Your task to perform on an android device: uninstall "Google Find My Device" Image 0: 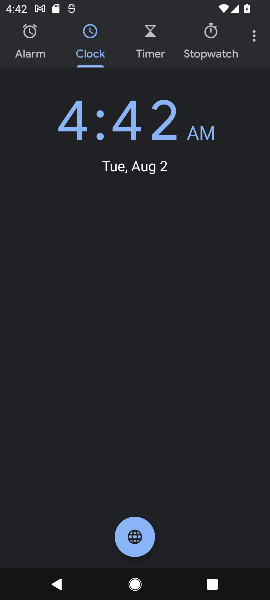
Step 0: press home button
Your task to perform on an android device: uninstall "Google Find My Device" Image 1: 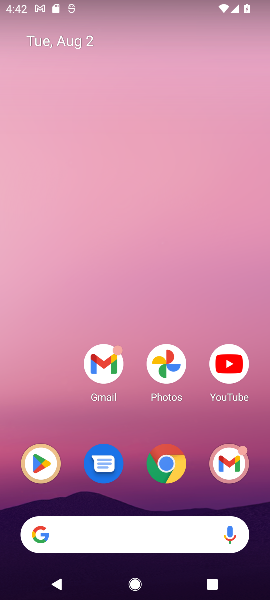
Step 1: click (37, 471)
Your task to perform on an android device: uninstall "Google Find My Device" Image 2: 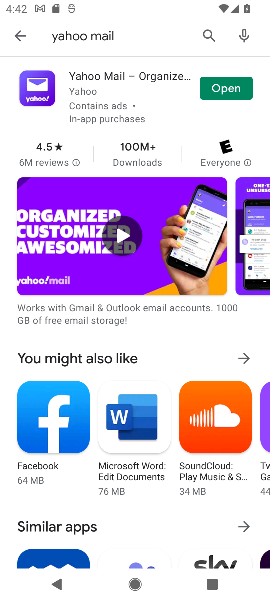
Step 2: click (205, 34)
Your task to perform on an android device: uninstall "Google Find My Device" Image 3: 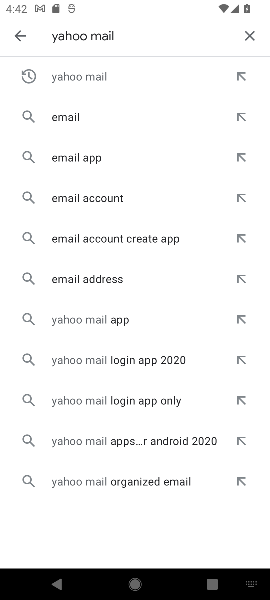
Step 3: click (248, 28)
Your task to perform on an android device: uninstall "Google Find My Device" Image 4: 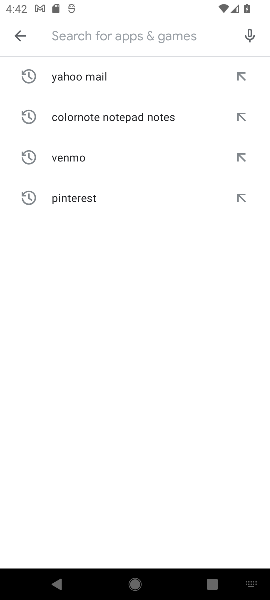
Step 4: type "Google Find My Device"
Your task to perform on an android device: uninstall "Google Find My Device" Image 5: 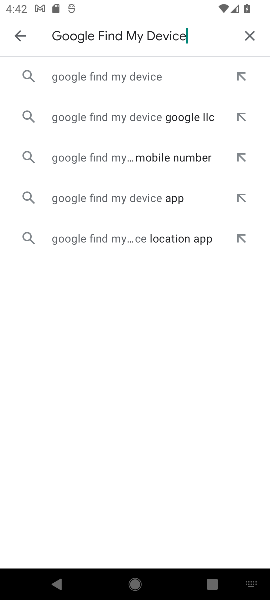
Step 5: click (154, 72)
Your task to perform on an android device: uninstall "Google Find My Device" Image 6: 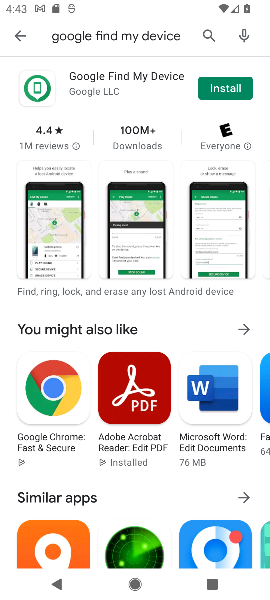
Step 6: task complete